Your task to perform on an android device: turn off javascript in the chrome app Image 0: 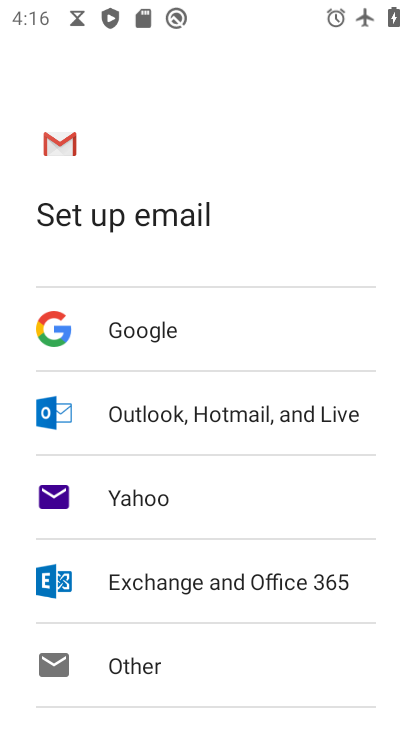
Step 0: press home button
Your task to perform on an android device: turn off javascript in the chrome app Image 1: 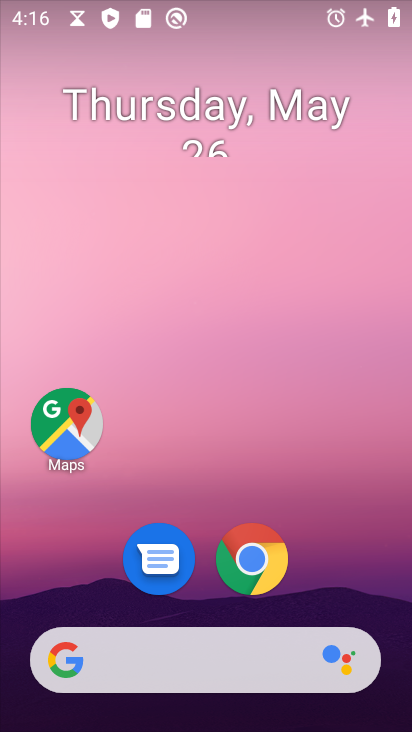
Step 1: click (252, 561)
Your task to perform on an android device: turn off javascript in the chrome app Image 2: 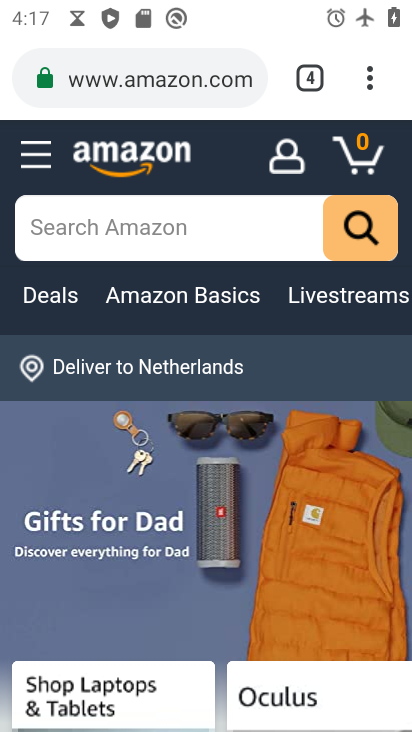
Step 2: click (365, 76)
Your task to perform on an android device: turn off javascript in the chrome app Image 3: 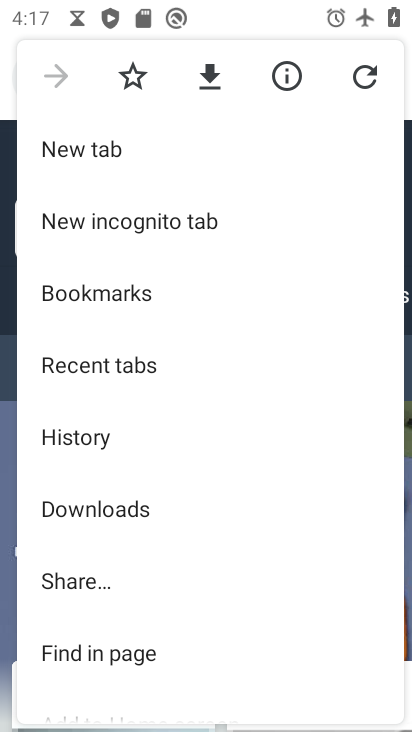
Step 3: drag from (196, 503) to (156, 131)
Your task to perform on an android device: turn off javascript in the chrome app Image 4: 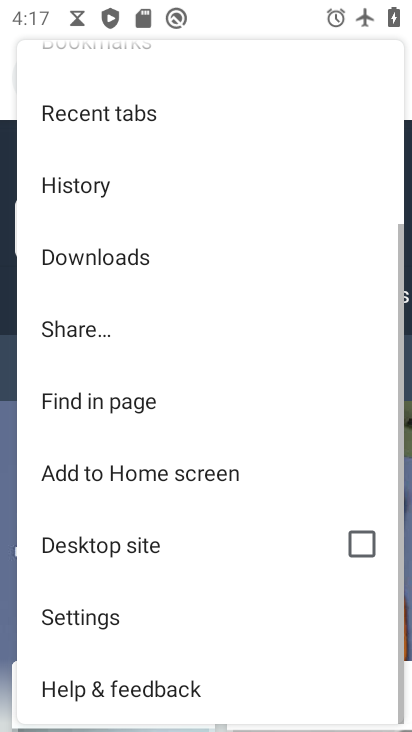
Step 4: click (180, 607)
Your task to perform on an android device: turn off javascript in the chrome app Image 5: 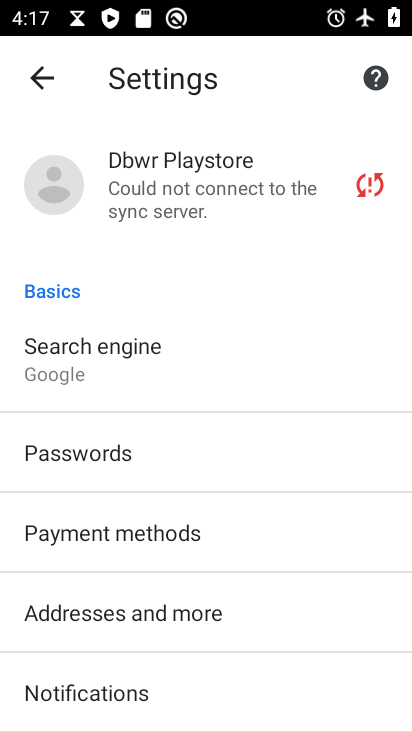
Step 5: drag from (297, 575) to (227, 161)
Your task to perform on an android device: turn off javascript in the chrome app Image 6: 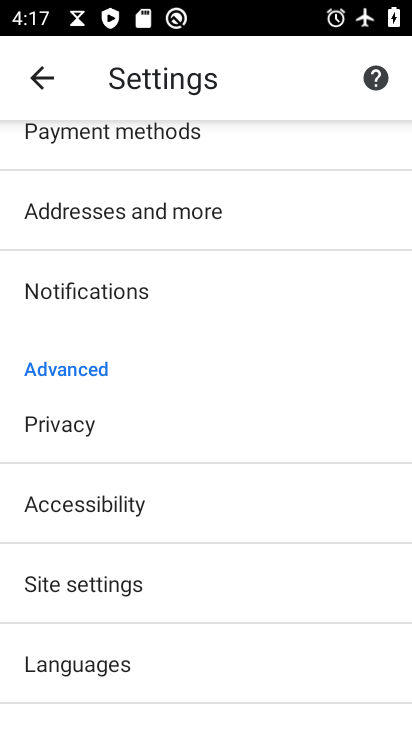
Step 6: click (140, 562)
Your task to perform on an android device: turn off javascript in the chrome app Image 7: 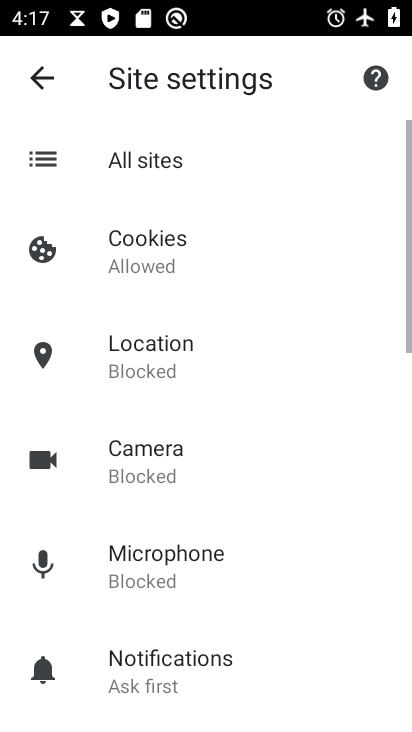
Step 7: drag from (255, 579) to (220, 79)
Your task to perform on an android device: turn off javascript in the chrome app Image 8: 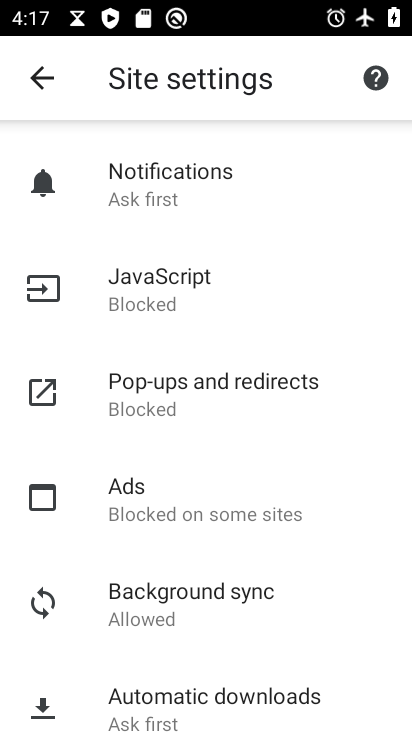
Step 8: click (190, 299)
Your task to perform on an android device: turn off javascript in the chrome app Image 9: 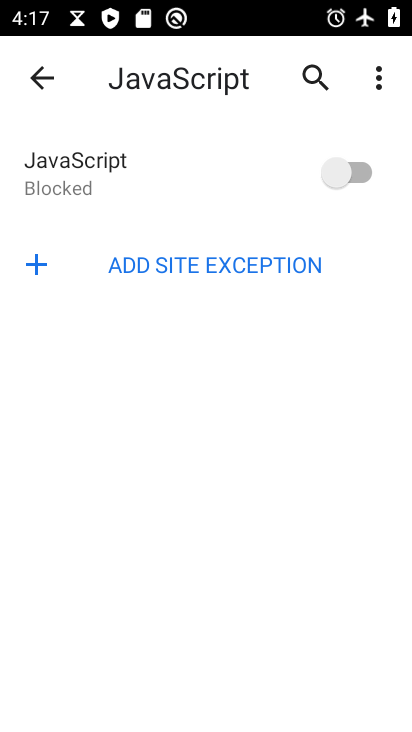
Step 9: task complete